Your task to perform on an android device: Open network settings Image 0: 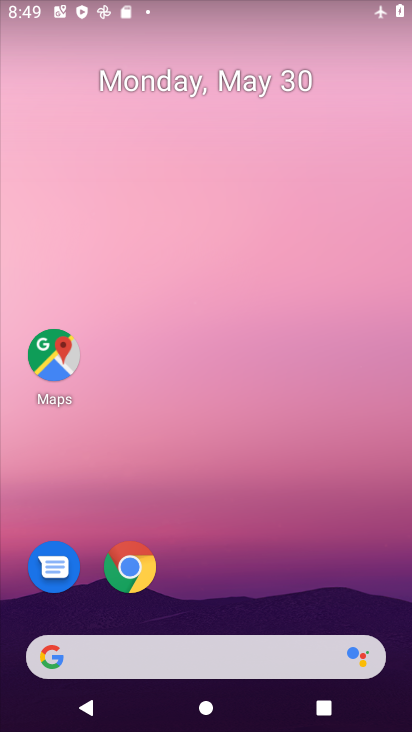
Step 0: drag from (259, 630) to (216, 49)
Your task to perform on an android device: Open network settings Image 1: 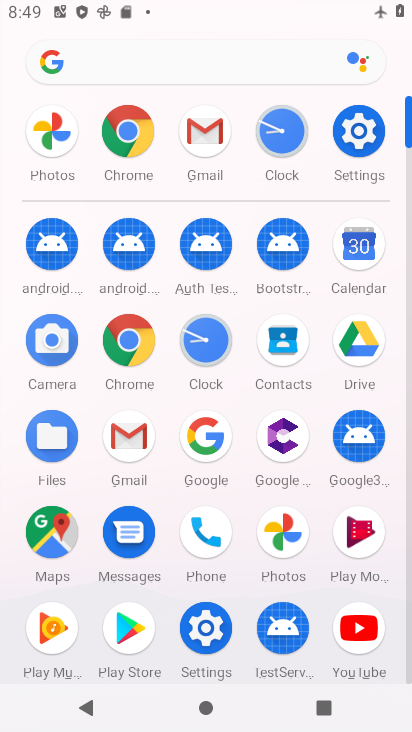
Step 1: click (373, 162)
Your task to perform on an android device: Open network settings Image 2: 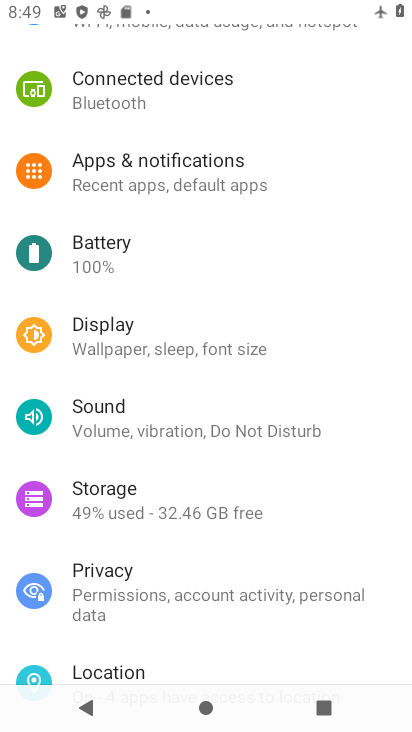
Step 2: drag from (220, 570) to (226, 316)
Your task to perform on an android device: Open network settings Image 3: 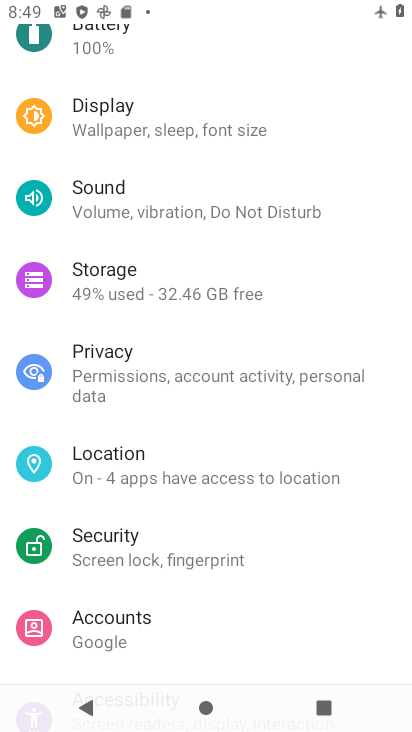
Step 3: drag from (138, 561) to (154, 381)
Your task to perform on an android device: Open network settings Image 4: 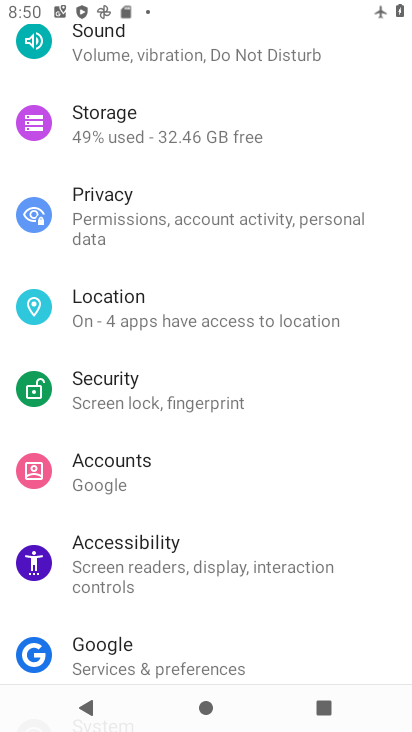
Step 4: drag from (230, 194) to (358, 632)
Your task to perform on an android device: Open network settings Image 5: 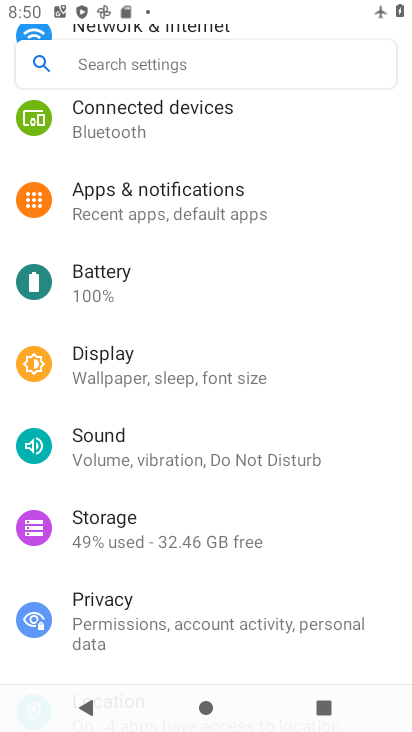
Step 5: click (102, 32)
Your task to perform on an android device: Open network settings Image 6: 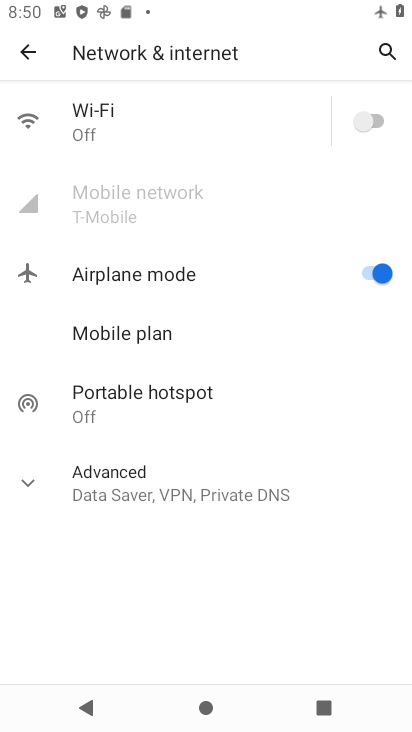
Step 6: task complete